Your task to perform on an android device: turn on showing notifications on the lock screen Image 0: 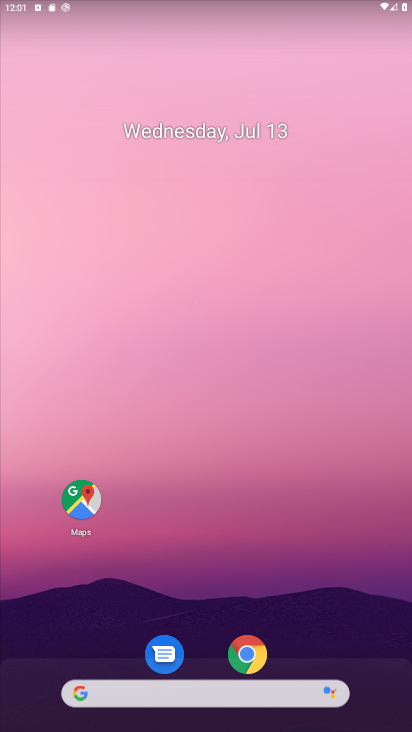
Step 0: drag from (282, 693) to (328, 129)
Your task to perform on an android device: turn on showing notifications on the lock screen Image 1: 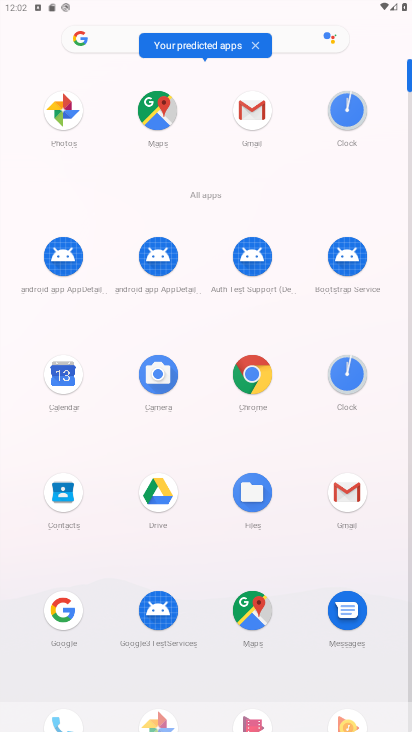
Step 1: drag from (239, 473) to (264, 125)
Your task to perform on an android device: turn on showing notifications on the lock screen Image 2: 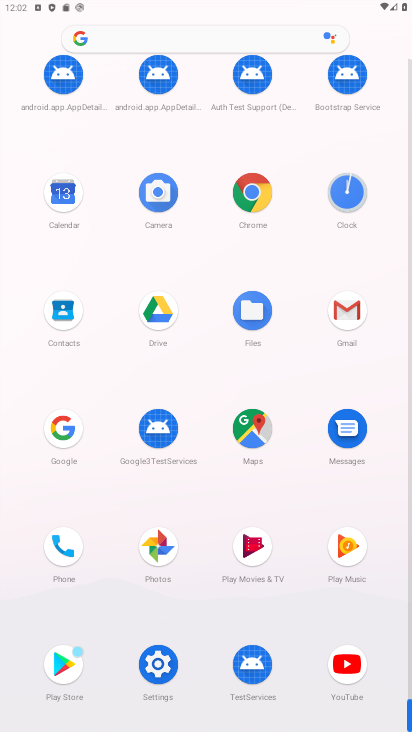
Step 2: click (156, 660)
Your task to perform on an android device: turn on showing notifications on the lock screen Image 3: 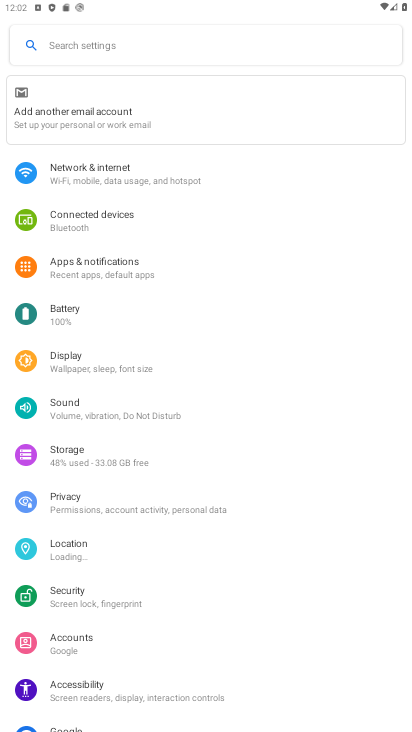
Step 3: click (147, 263)
Your task to perform on an android device: turn on showing notifications on the lock screen Image 4: 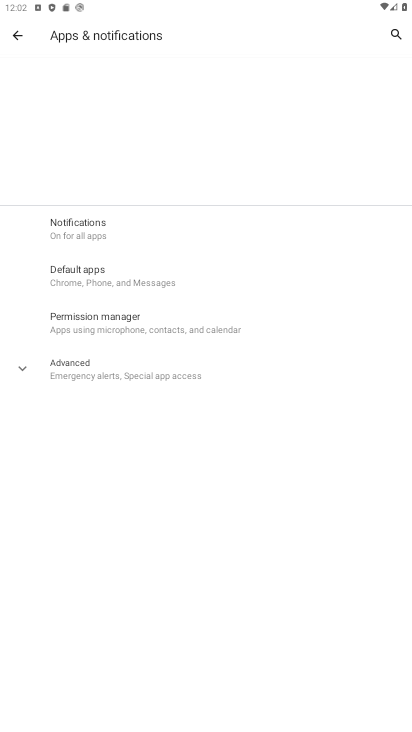
Step 4: click (111, 234)
Your task to perform on an android device: turn on showing notifications on the lock screen Image 5: 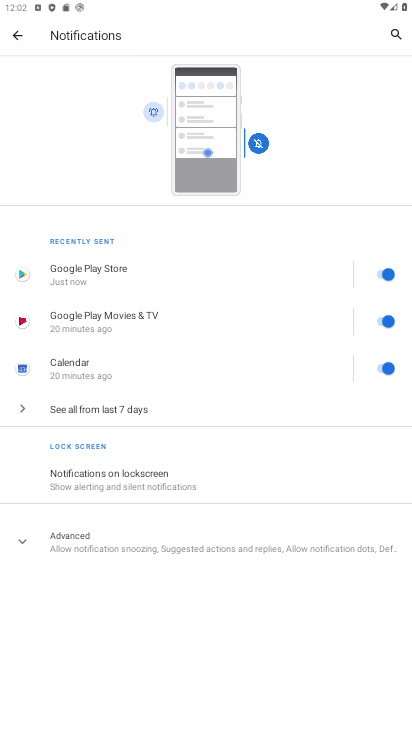
Step 5: click (146, 474)
Your task to perform on an android device: turn on showing notifications on the lock screen Image 6: 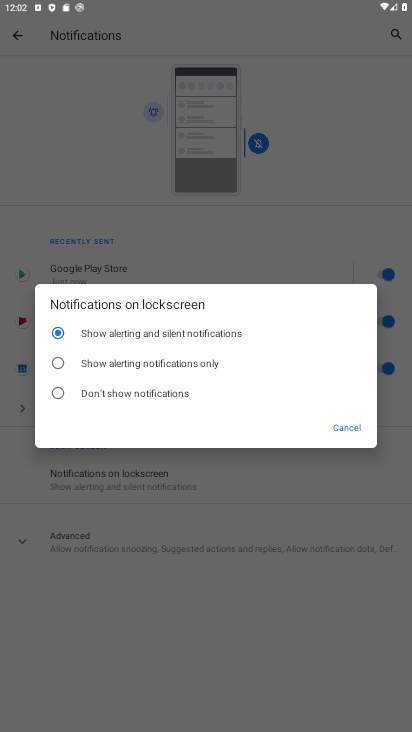
Step 6: task complete